Your task to perform on an android device: make emails show in primary in the gmail app Image 0: 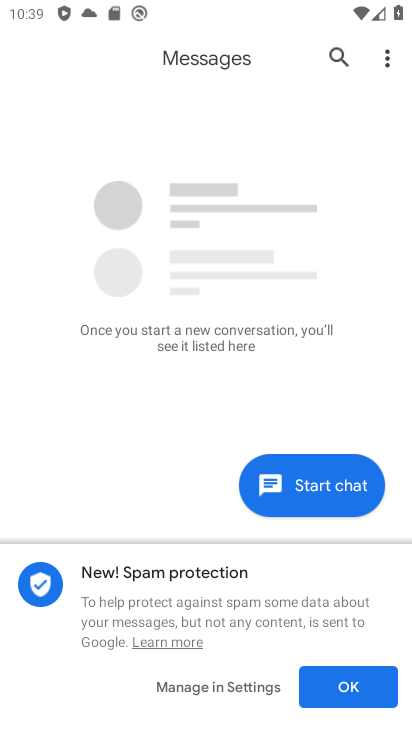
Step 0: press home button
Your task to perform on an android device: make emails show in primary in the gmail app Image 1: 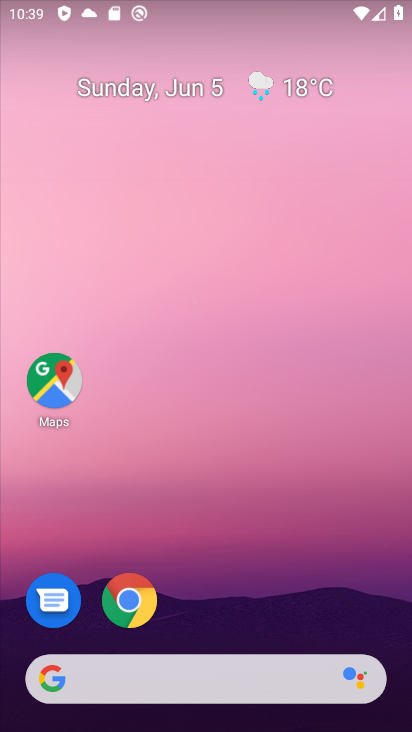
Step 1: drag from (207, 588) to (230, 209)
Your task to perform on an android device: make emails show in primary in the gmail app Image 2: 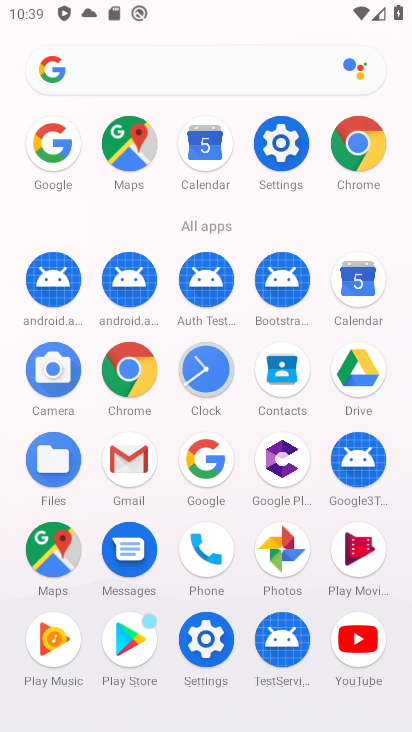
Step 2: click (137, 456)
Your task to perform on an android device: make emails show in primary in the gmail app Image 3: 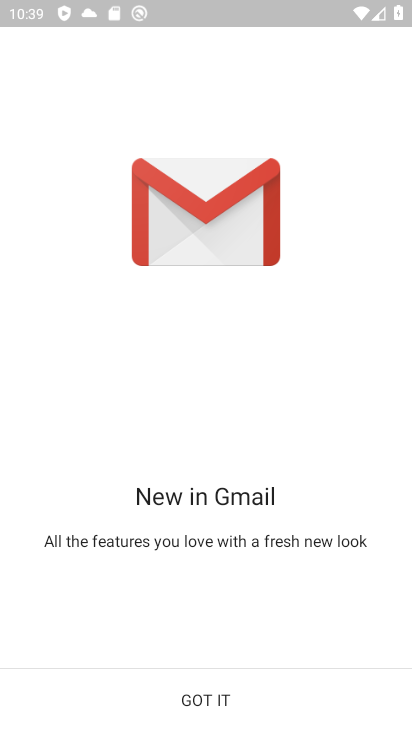
Step 3: click (205, 689)
Your task to perform on an android device: make emails show in primary in the gmail app Image 4: 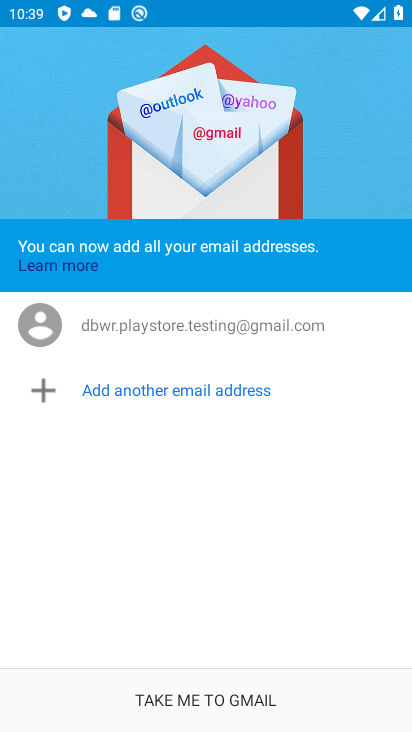
Step 4: click (204, 690)
Your task to perform on an android device: make emails show in primary in the gmail app Image 5: 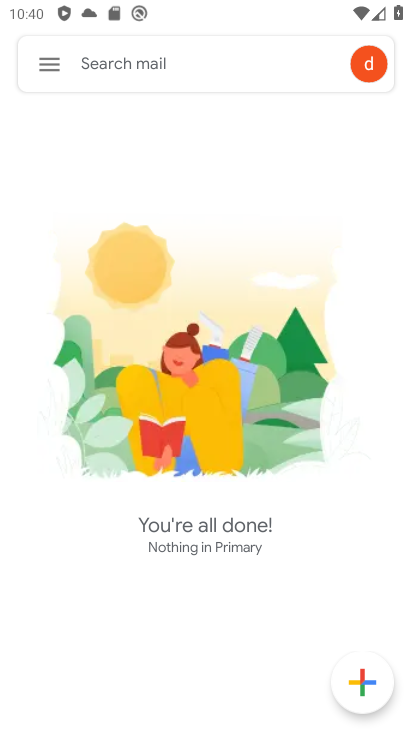
Step 5: click (50, 67)
Your task to perform on an android device: make emails show in primary in the gmail app Image 6: 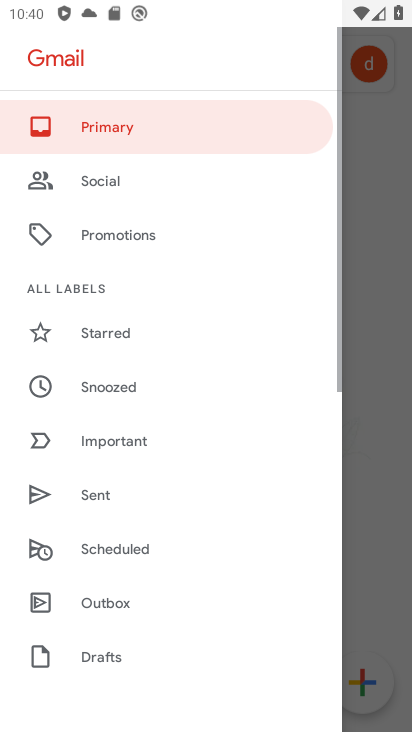
Step 6: drag from (137, 602) to (181, 313)
Your task to perform on an android device: make emails show in primary in the gmail app Image 7: 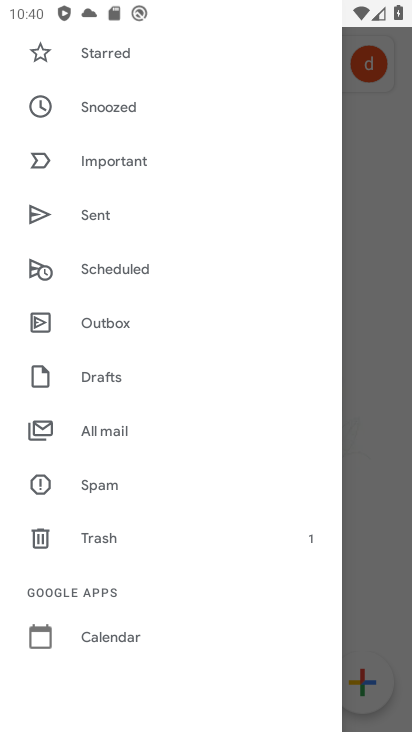
Step 7: drag from (137, 616) to (183, 371)
Your task to perform on an android device: make emails show in primary in the gmail app Image 8: 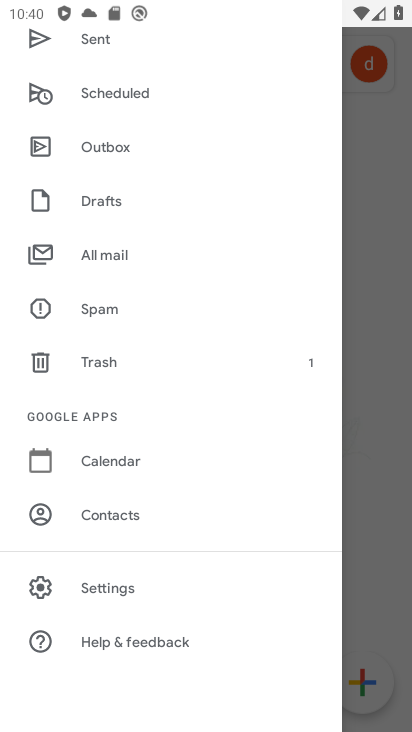
Step 8: click (188, 579)
Your task to perform on an android device: make emails show in primary in the gmail app Image 9: 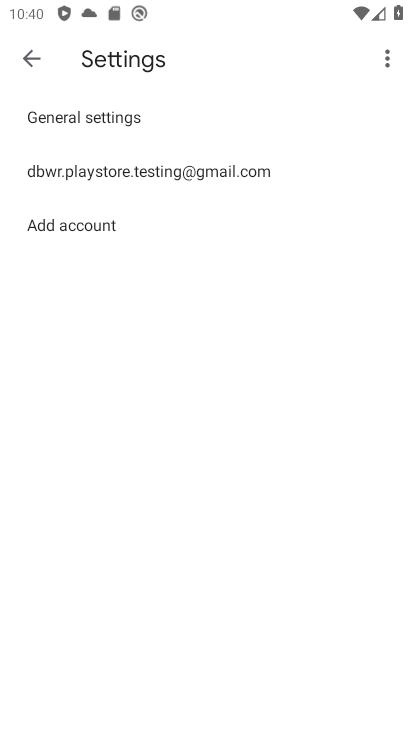
Step 9: click (81, 171)
Your task to perform on an android device: make emails show in primary in the gmail app Image 10: 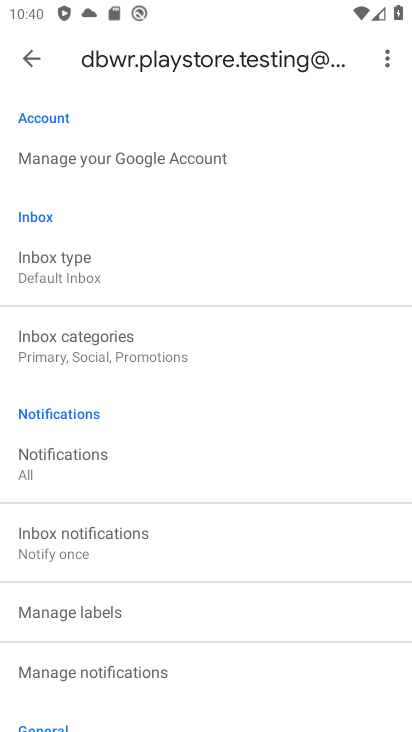
Step 10: click (116, 272)
Your task to perform on an android device: make emails show in primary in the gmail app Image 11: 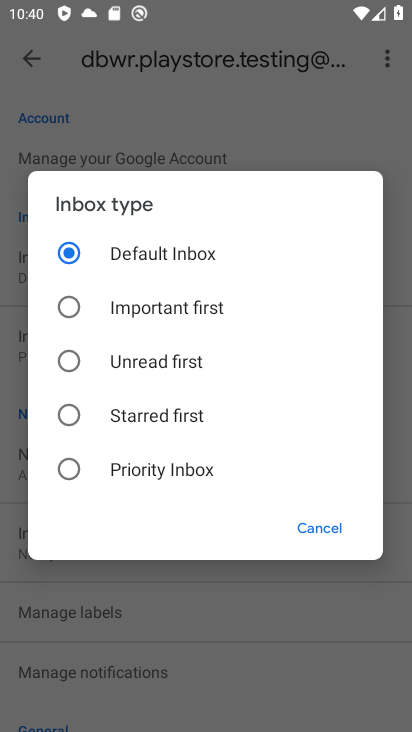
Step 11: task complete